Your task to perform on an android device: Go to Amazon Image 0: 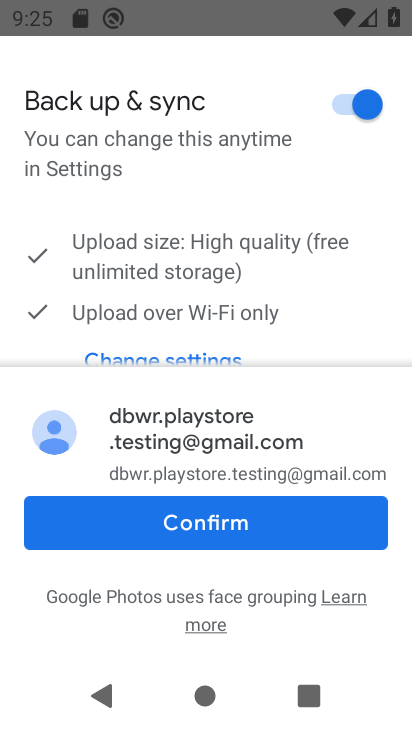
Step 0: press home button
Your task to perform on an android device: Go to Amazon Image 1: 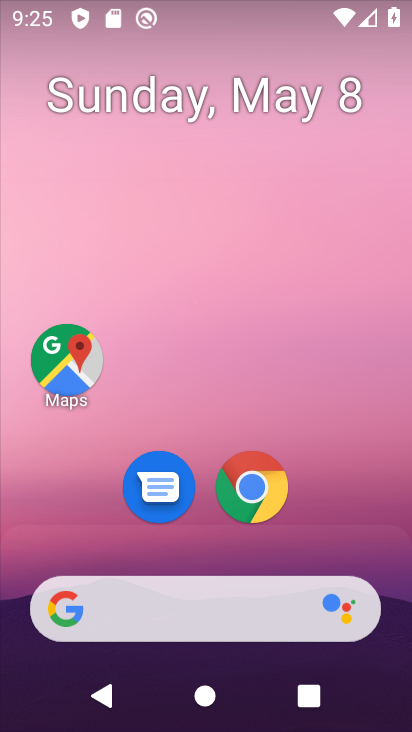
Step 1: click (261, 493)
Your task to perform on an android device: Go to Amazon Image 2: 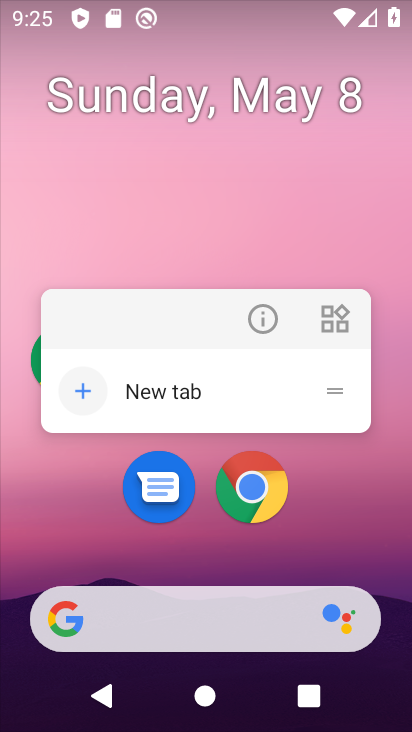
Step 2: click (261, 493)
Your task to perform on an android device: Go to Amazon Image 3: 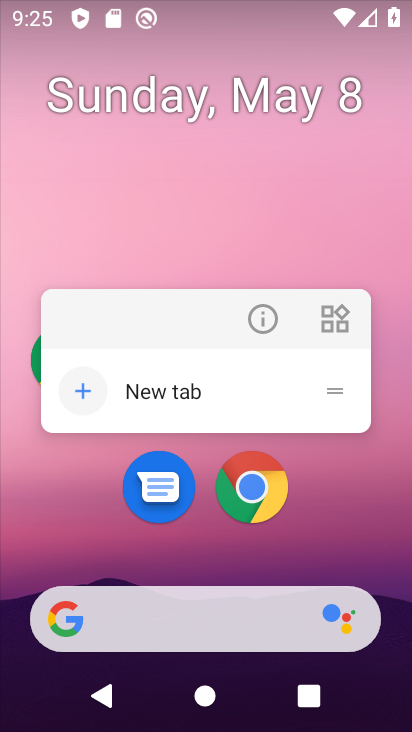
Step 3: click (261, 493)
Your task to perform on an android device: Go to Amazon Image 4: 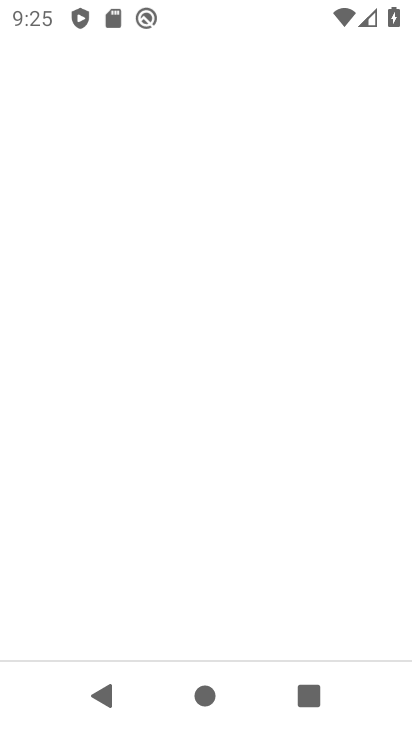
Step 4: click (261, 493)
Your task to perform on an android device: Go to Amazon Image 5: 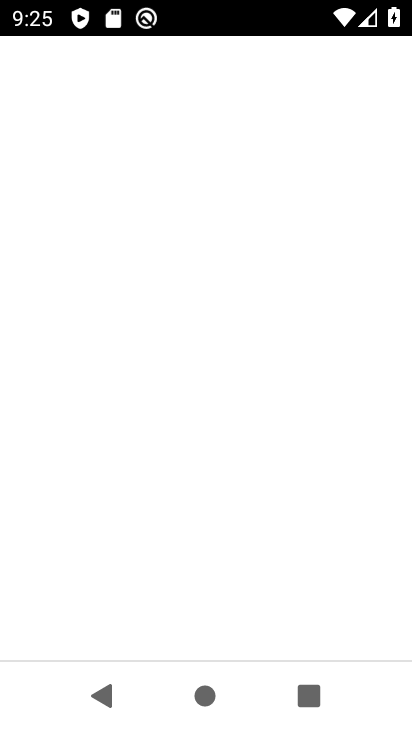
Step 5: click (261, 493)
Your task to perform on an android device: Go to Amazon Image 6: 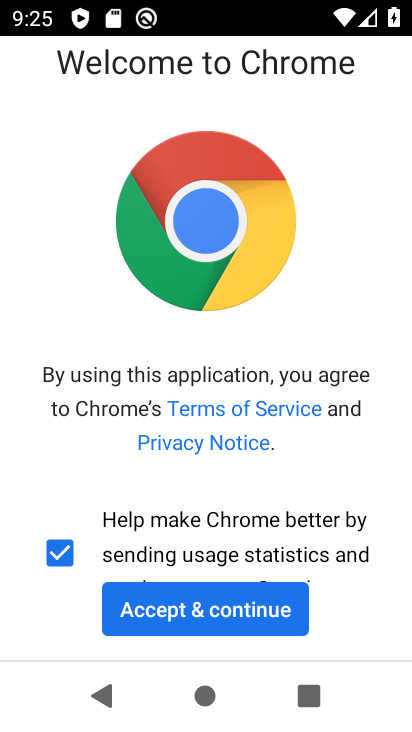
Step 6: click (269, 601)
Your task to perform on an android device: Go to Amazon Image 7: 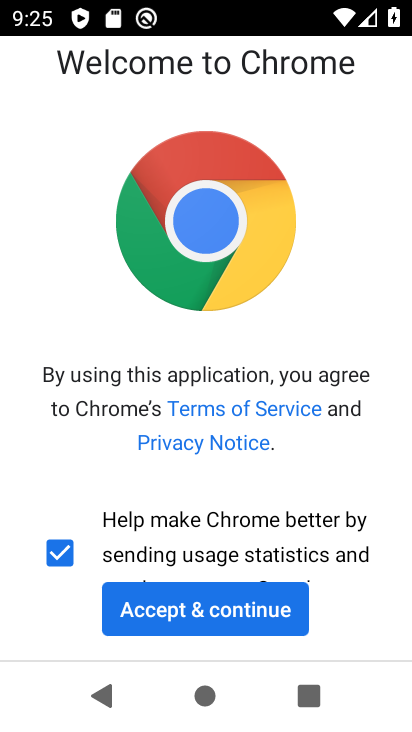
Step 7: click (269, 601)
Your task to perform on an android device: Go to Amazon Image 8: 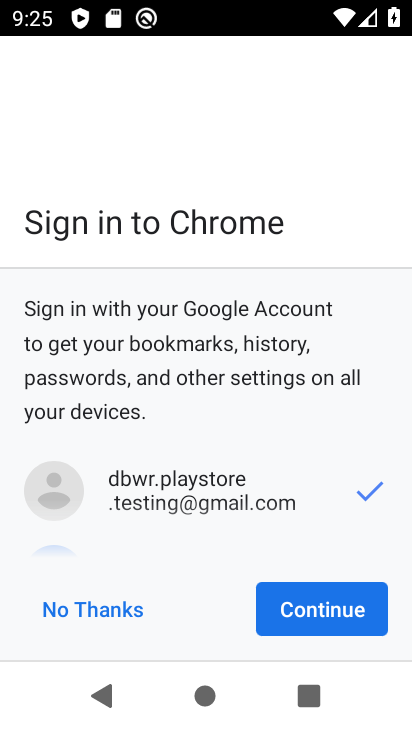
Step 8: click (349, 621)
Your task to perform on an android device: Go to Amazon Image 9: 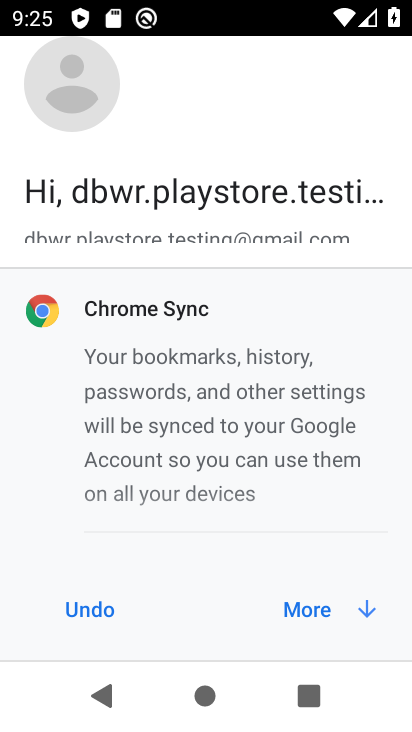
Step 9: click (326, 617)
Your task to perform on an android device: Go to Amazon Image 10: 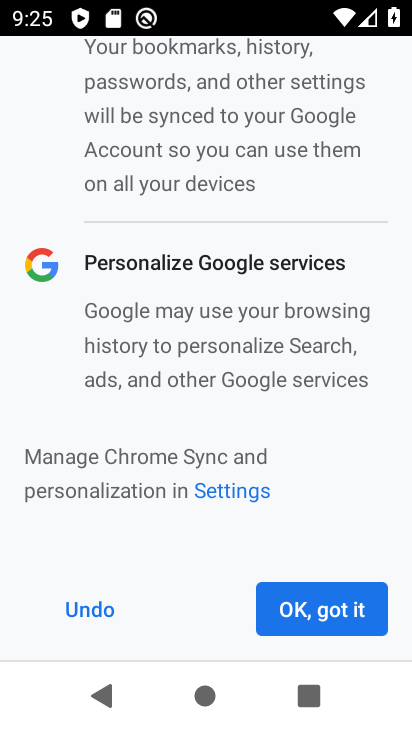
Step 10: click (326, 617)
Your task to perform on an android device: Go to Amazon Image 11: 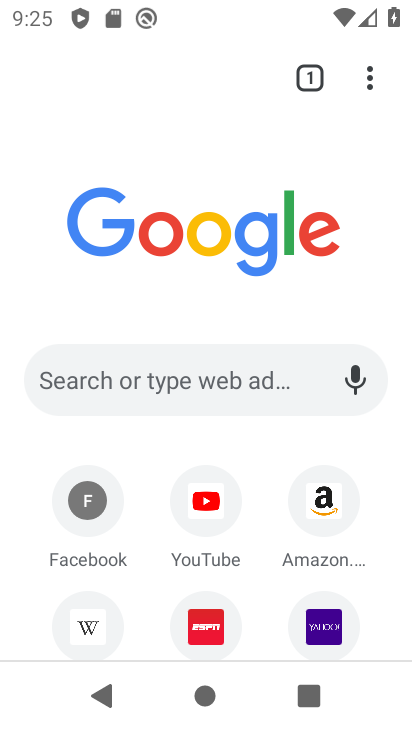
Step 11: click (329, 525)
Your task to perform on an android device: Go to Amazon Image 12: 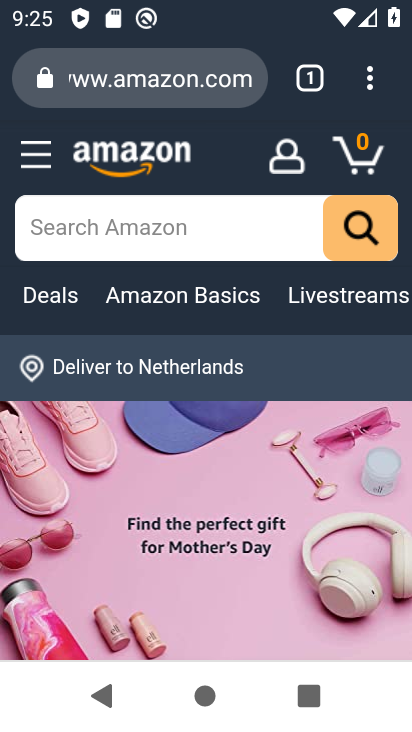
Step 12: task complete